Your task to perform on an android device: Open my contact list Image 0: 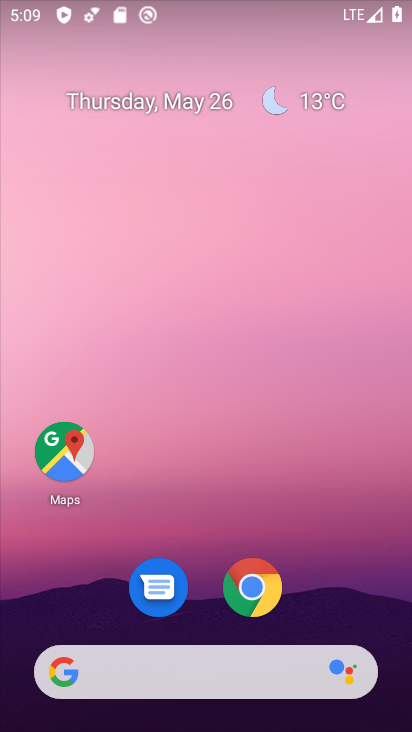
Step 0: drag from (168, 728) to (157, 134)
Your task to perform on an android device: Open my contact list Image 1: 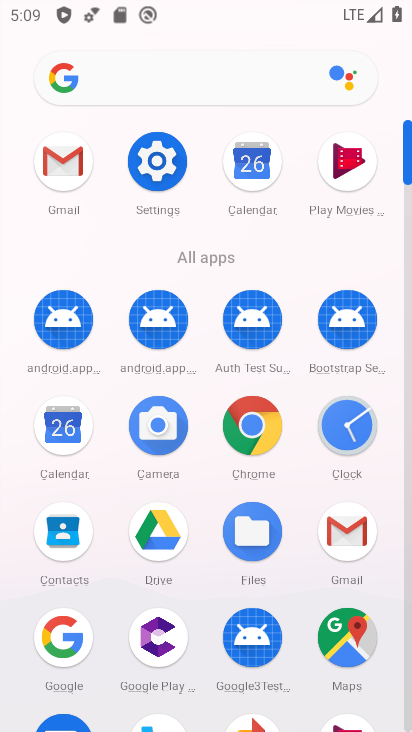
Step 1: click (72, 529)
Your task to perform on an android device: Open my contact list Image 2: 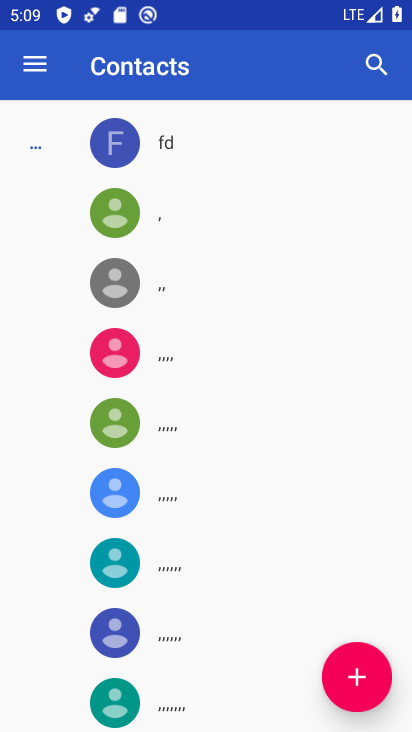
Step 2: task complete